Your task to perform on an android device: refresh tabs in the chrome app Image 0: 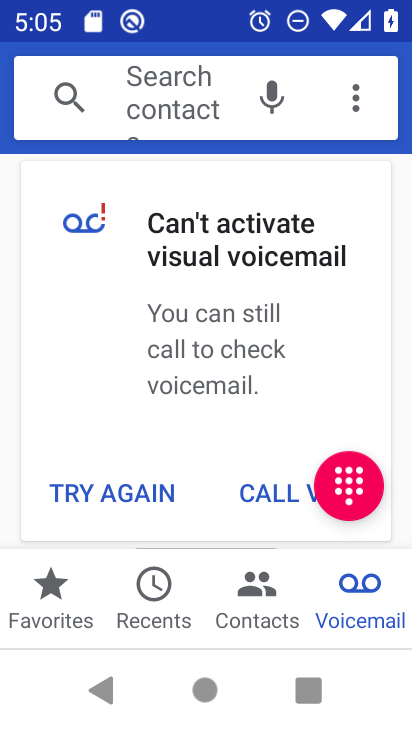
Step 0: press home button
Your task to perform on an android device: refresh tabs in the chrome app Image 1: 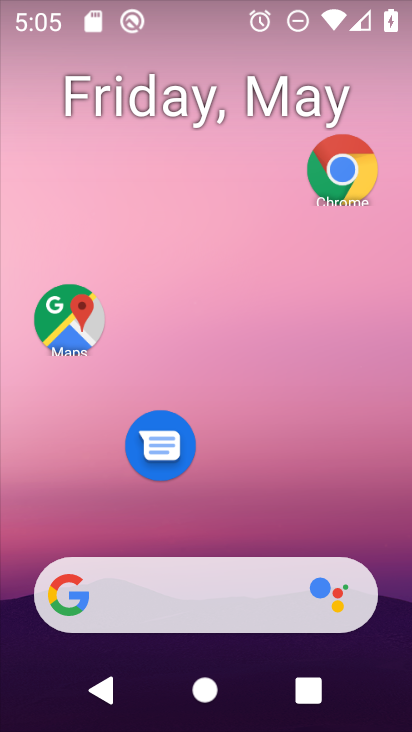
Step 1: click (340, 178)
Your task to perform on an android device: refresh tabs in the chrome app Image 2: 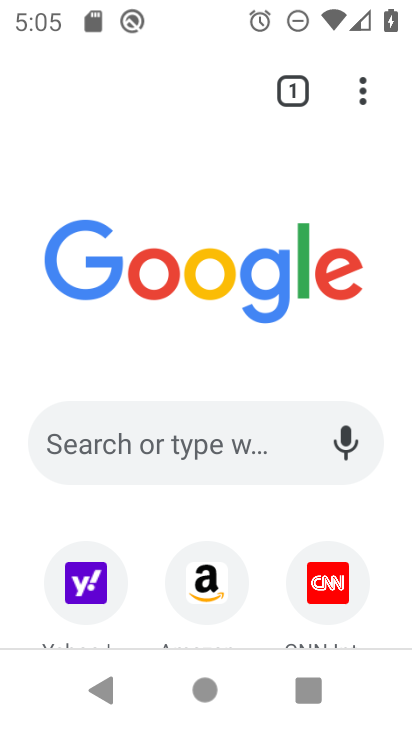
Step 2: click (361, 94)
Your task to perform on an android device: refresh tabs in the chrome app Image 3: 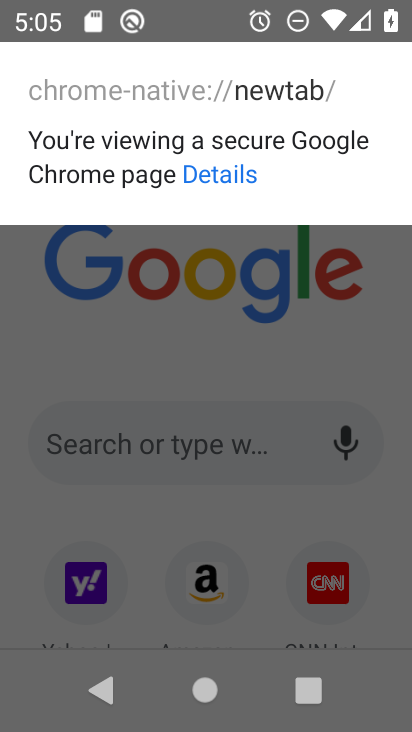
Step 3: click (256, 352)
Your task to perform on an android device: refresh tabs in the chrome app Image 4: 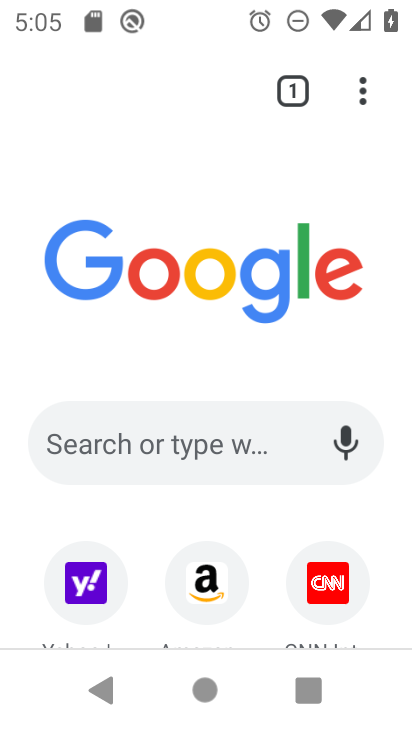
Step 4: click (367, 105)
Your task to perform on an android device: refresh tabs in the chrome app Image 5: 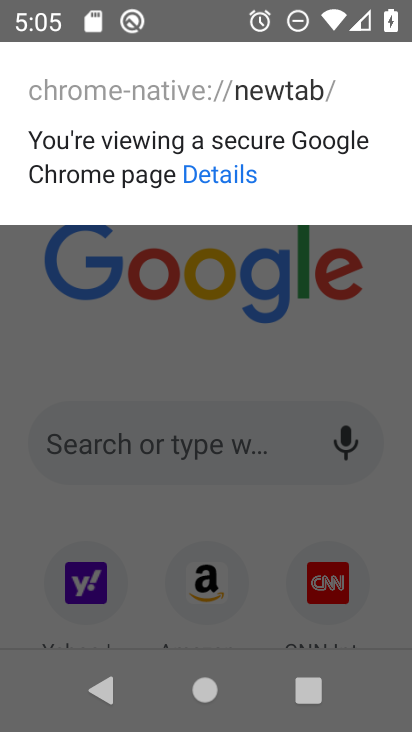
Step 5: click (294, 314)
Your task to perform on an android device: refresh tabs in the chrome app Image 6: 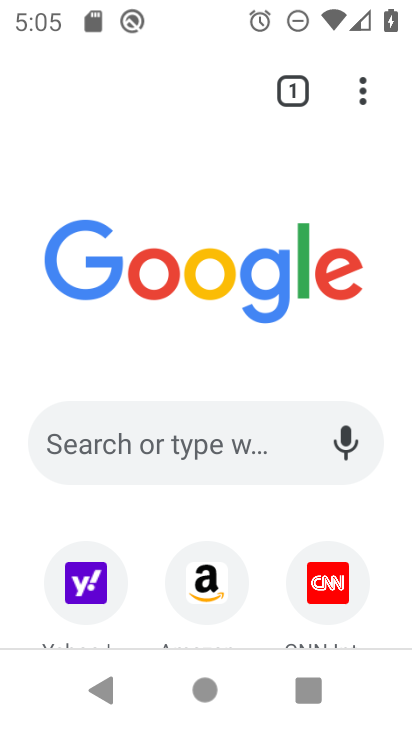
Step 6: click (286, 281)
Your task to perform on an android device: refresh tabs in the chrome app Image 7: 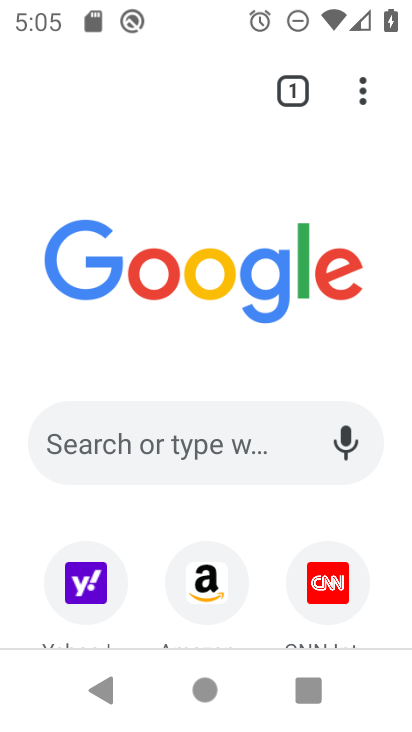
Step 7: click (367, 94)
Your task to perform on an android device: refresh tabs in the chrome app Image 8: 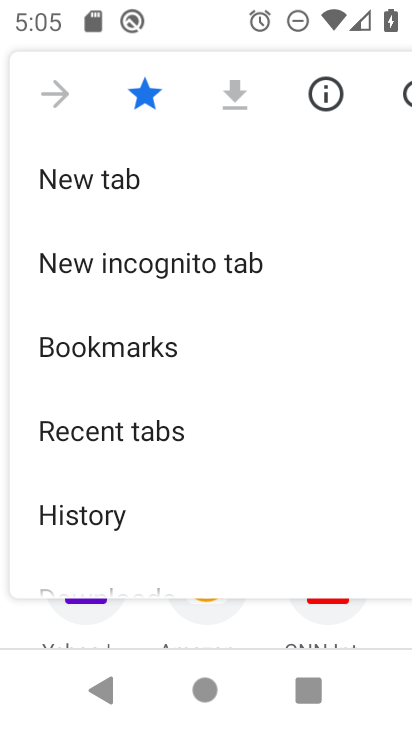
Step 8: click (406, 104)
Your task to perform on an android device: refresh tabs in the chrome app Image 9: 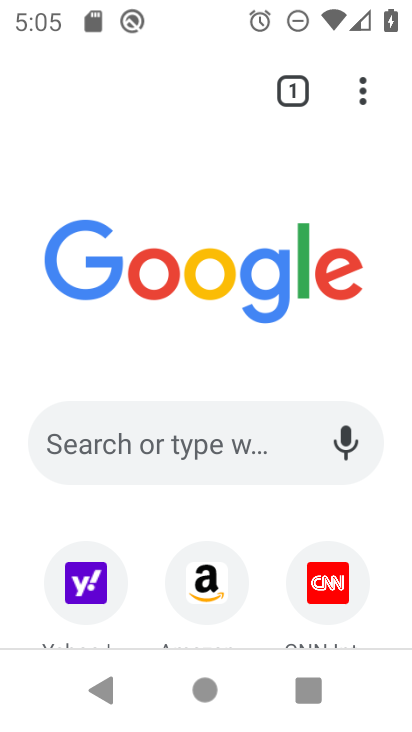
Step 9: task complete